Your task to perform on an android device: open chrome and create a bookmark for the current page Image 0: 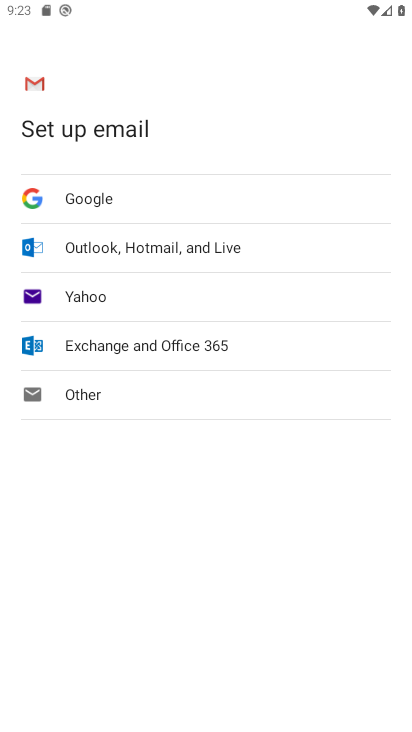
Step 0: press home button
Your task to perform on an android device: open chrome and create a bookmark for the current page Image 1: 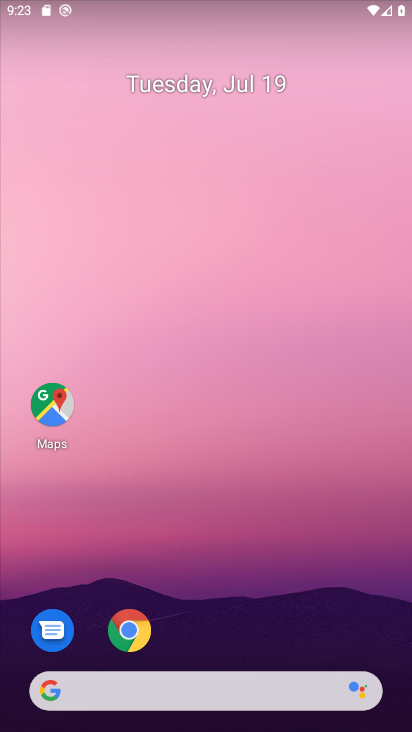
Step 1: click (129, 641)
Your task to perform on an android device: open chrome and create a bookmark for the current page Image 2: 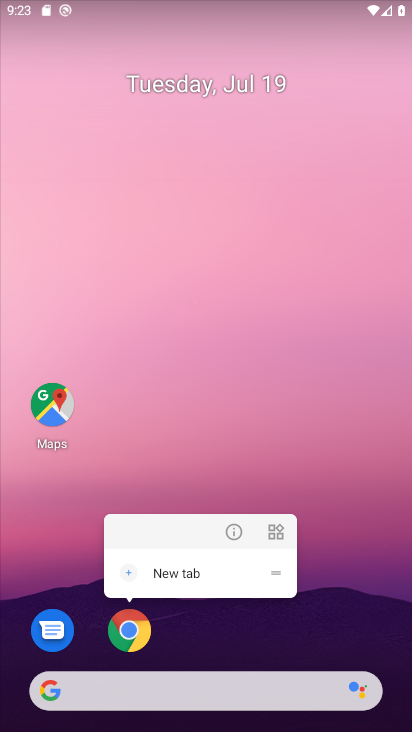
Step 2: click (135, 630)
Your task to perform on an android device: open chrome and create a bookmark for the current page Image 3: 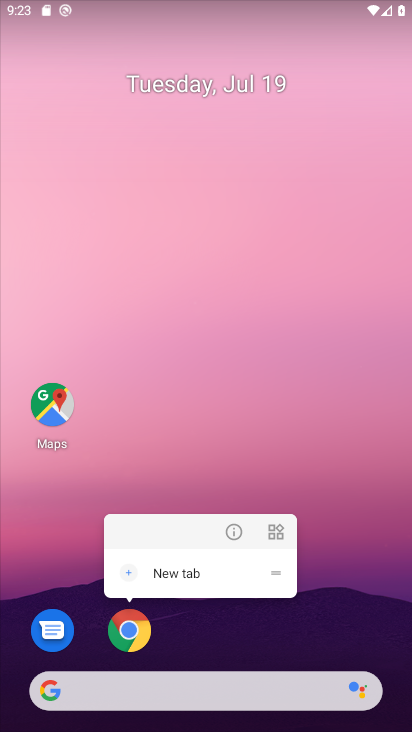
Step 3: click (128, 630)
Your task to perform on an android device: open chrome and create a bookmark for the current page Image 4: 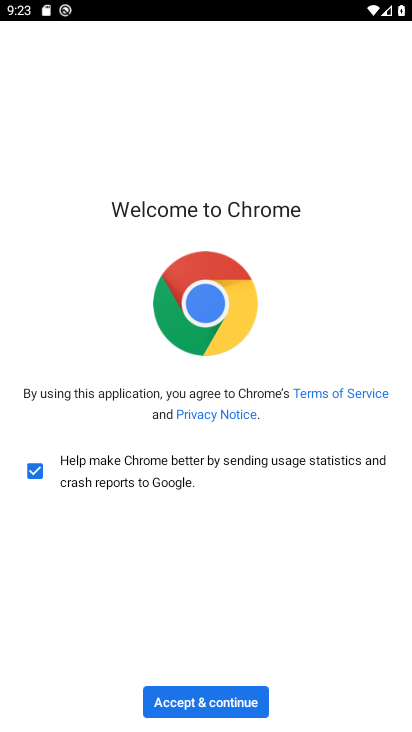
Step 4: click (223, 707)
Your task to perform on an android device: open chrome and create a bookmark for the current page Image 5: 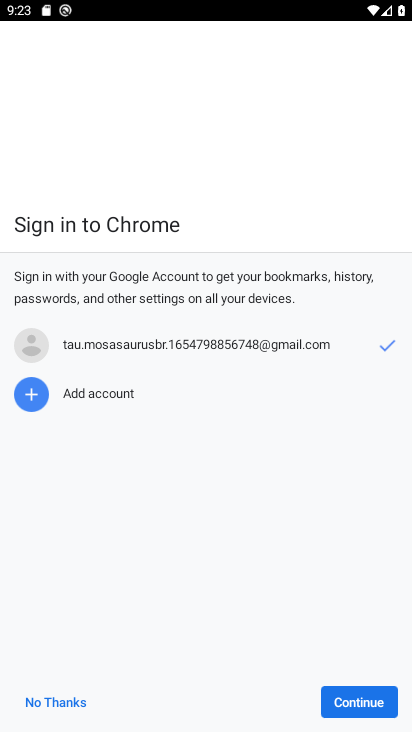
Step 5: click (364, 704)
Your task to perform on an android device: open chrome and create a bookmark for the current page Image 6: 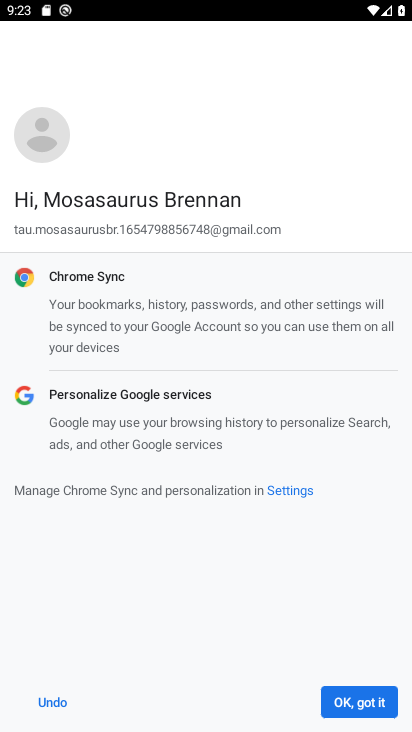
Step 6: click (364, 704)
Your task to perform on an android device: open chrome and create a bookmark for the current page Image 7: 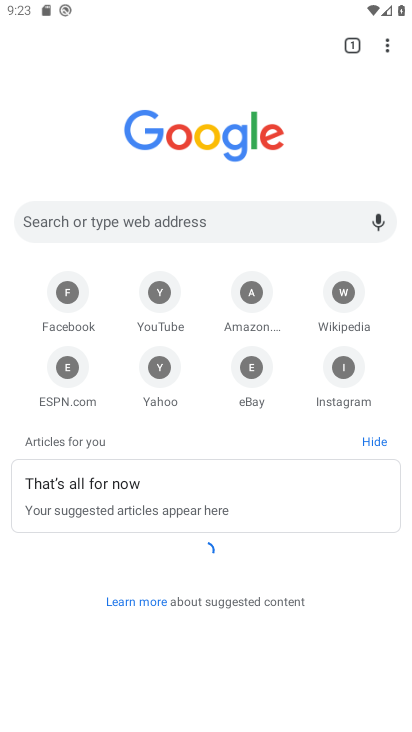
Step 7: click (387, 39)
Your task to perform on an android device: open chrome and create a bookmark for the current page Image 8: 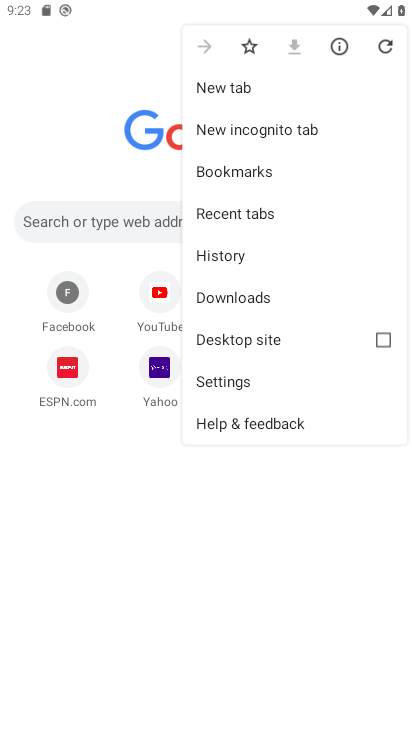
Step 8: click (245, 44)
Your task to perform on an android device: open chrome and create a bookmark for the current page Image 9: 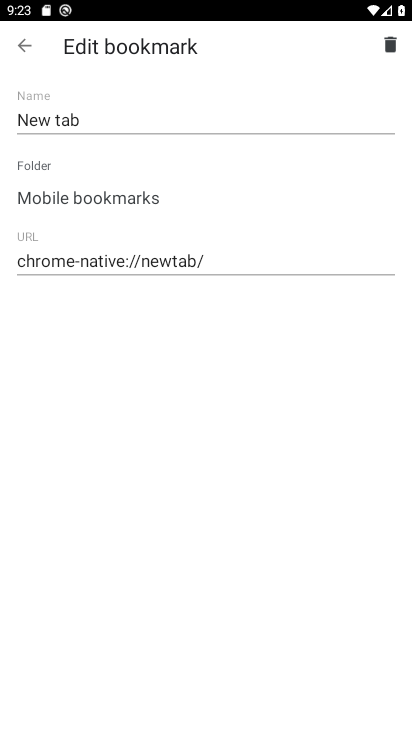
Step 9: click (18, 42)
Your task to perform on an android device: open chrome and create a bookmark for the current page Image 10: 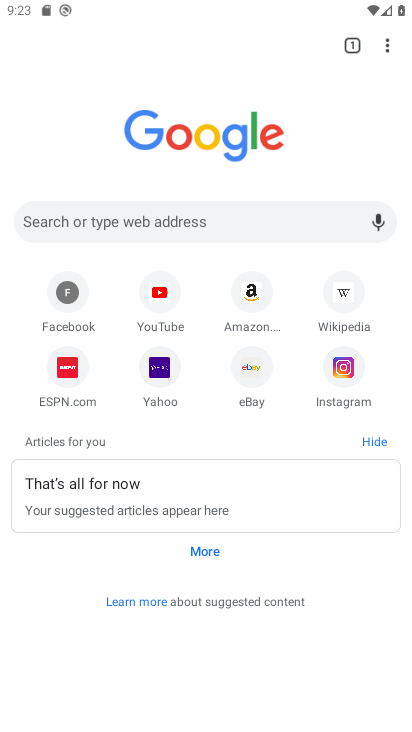
Step 10: click (381, 42)
Your task to perform on an android device: open chrome and create a bookmark for the current page Image 11: 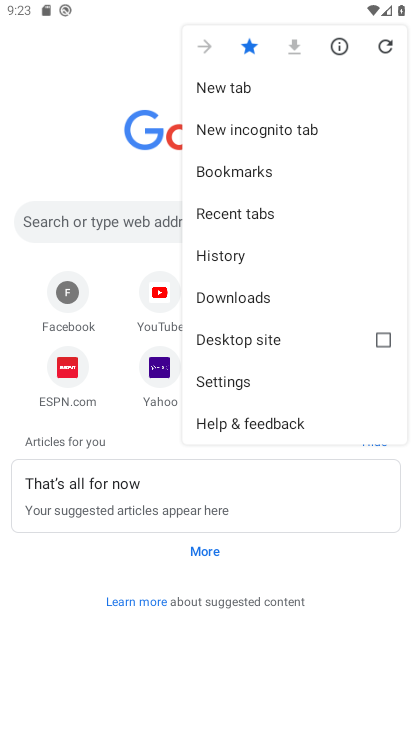
Step 11: task complete